Your task to perform on an android device: turn off picture-in-picture Image 0: 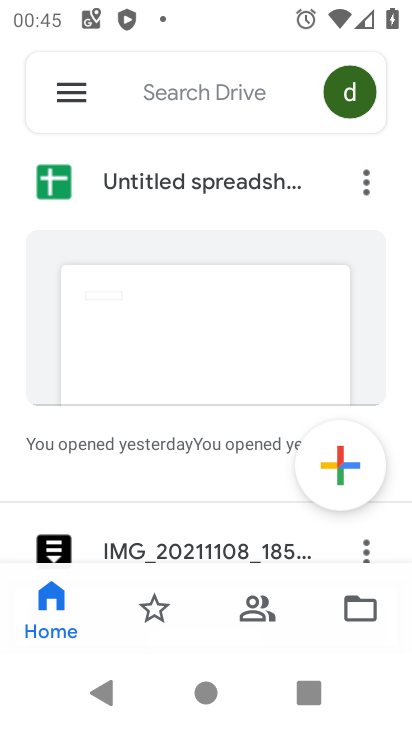
Step 0: press home button
Your task to perform on an android device: turn off picture-in-picture Image 1: 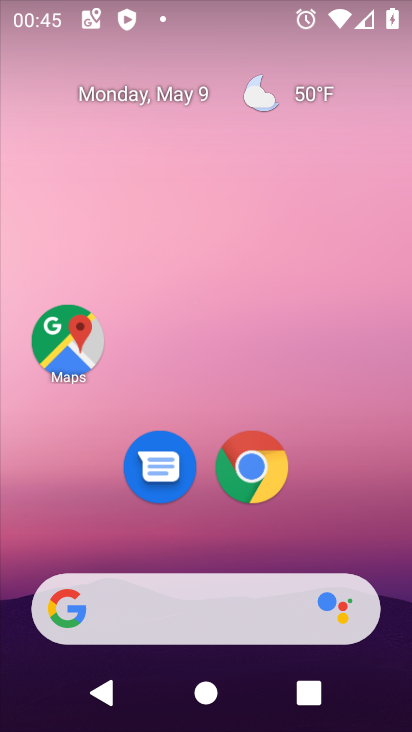
Step 1: click (260, 464)
Your task to perform on an android device: turn off picture-in-picture Image 2: 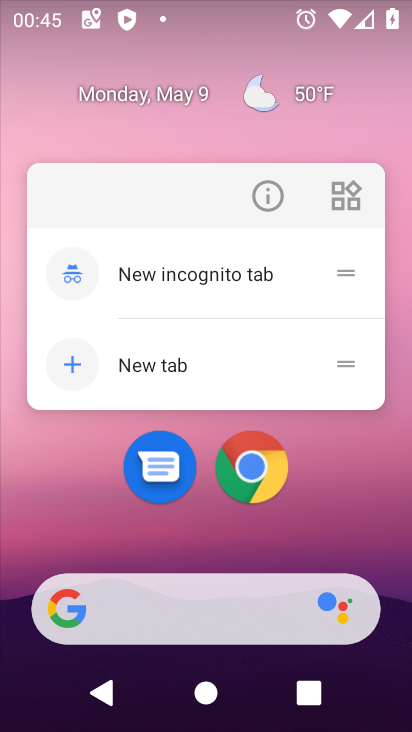
Step 2: click (272, 191)
Your task to perform on an android device: turn off picture-in-picture Image 3: 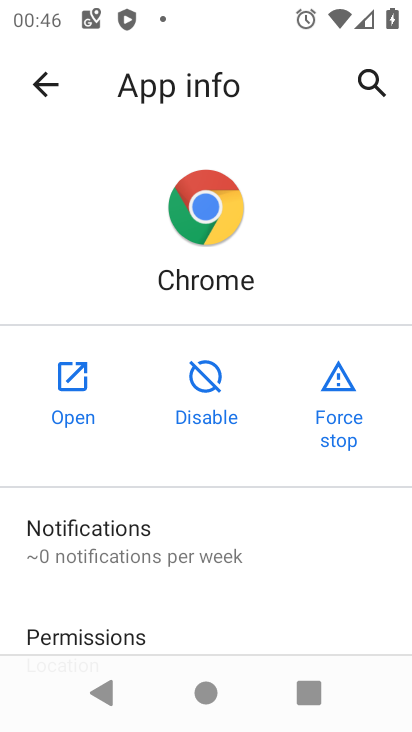
Step 3: drag from (202, 577) to (175, 18)
Your task to perform on an android device: turn off picture-in-picture Image 4: 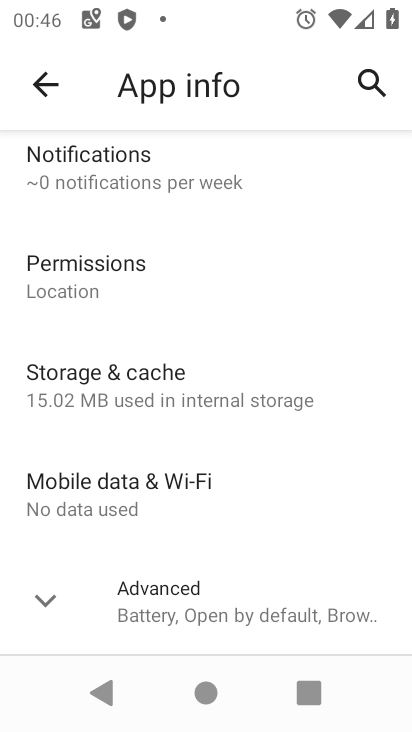
Step 4: click (35, 598)
Your task to perform on an android device: turn off picture-in-picture Image 5: 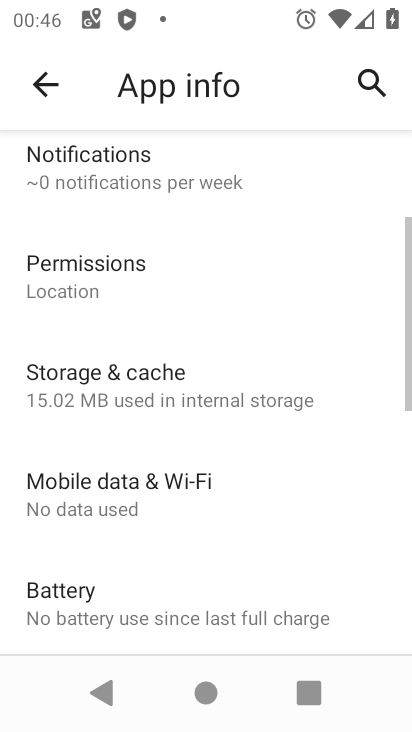
Step 5: drag from (186, 606) to (185, 144)
Your task to perform on an android device: turn off picture-in-picture Image 6: 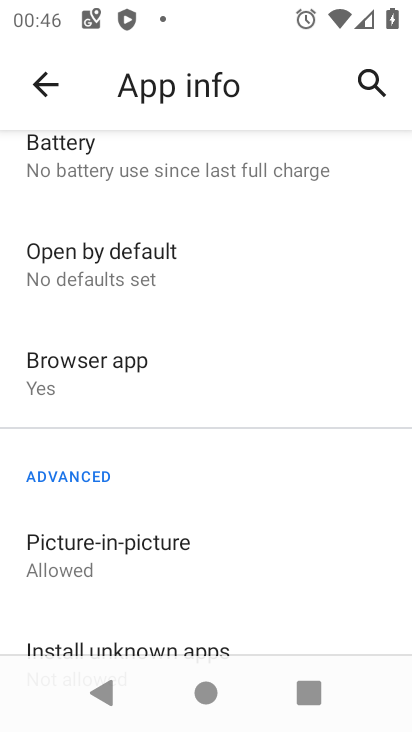
Step 6: click (95, 555)
Your task to perform on an android device: turn off picture-in-picture Image 7: 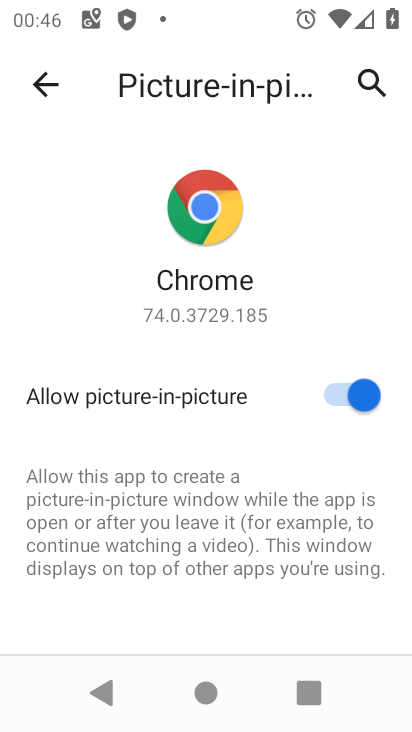
Step 7: click (339, 390)
Your task to perform on an android device: turn off picture-in-picture Image 8: 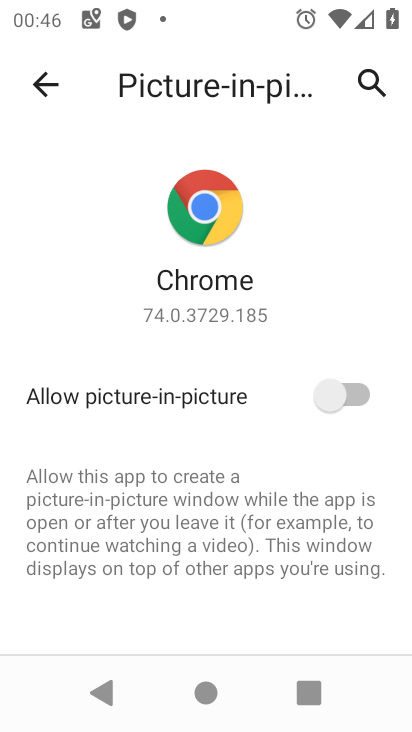
Step 8: task complete